Your task to perform on an android device: check data usage Image 0: 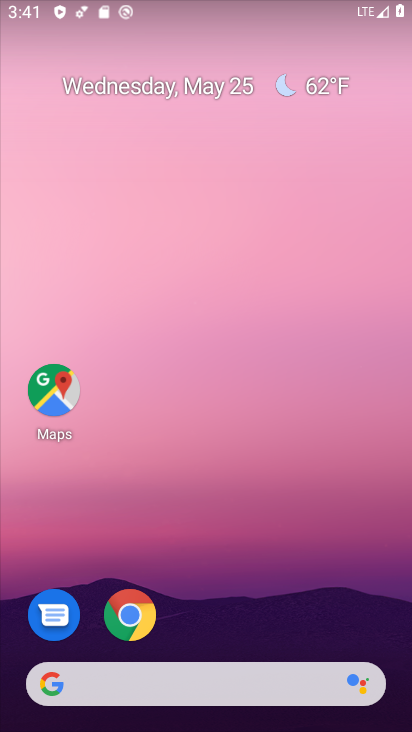
Step 0: drag from (210, 266) to (149, 30)
Your task to perform on an android device: check data usage Image 1: 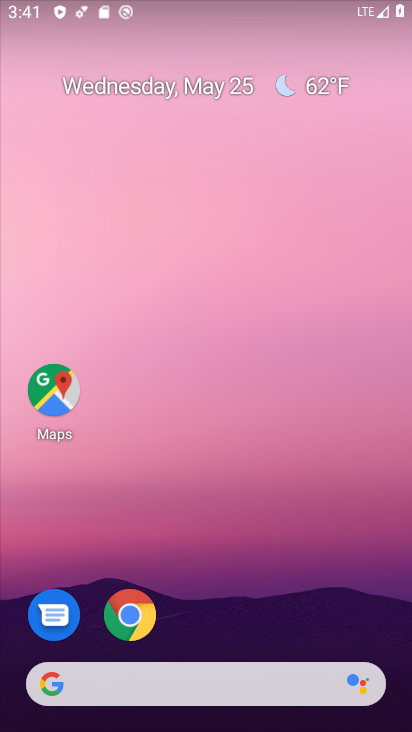
Step 1: drag from (228, 562) to (239, 42)
Your task to perform on an android device: check data usage Image 2: 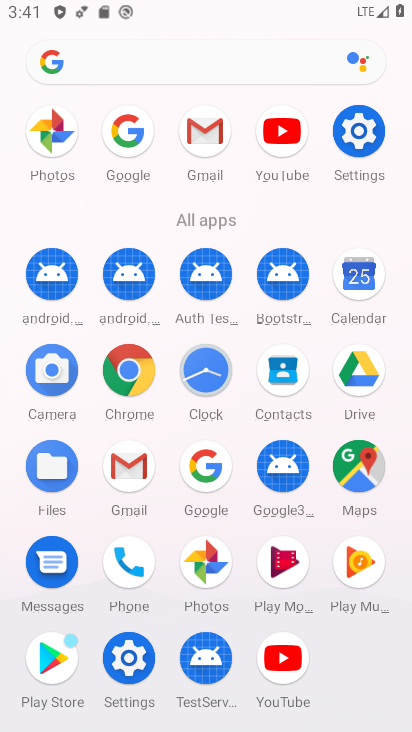
Step 2: click (352, 134)
Your task to perform on an android device: check data usage Image 3: 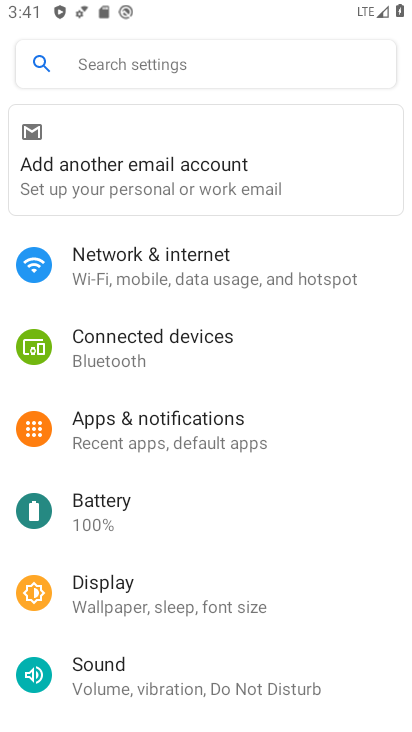
Step 3: click (211, 281)
Your task to perform on an android device: check data usage Image 4: 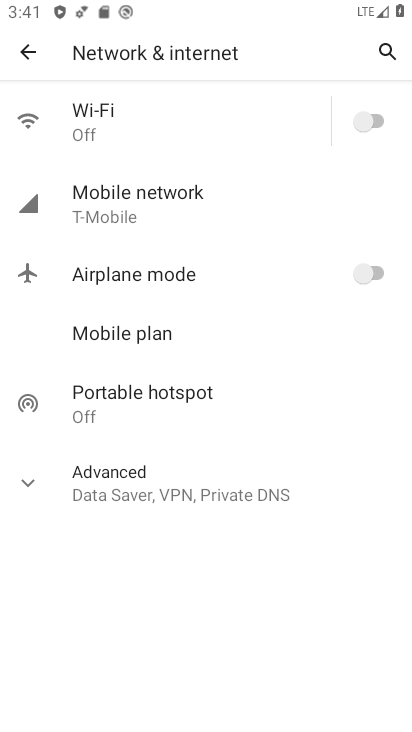
Step 4: click (147, 205)
Your task to perform on an android device: check data usage Image 5: 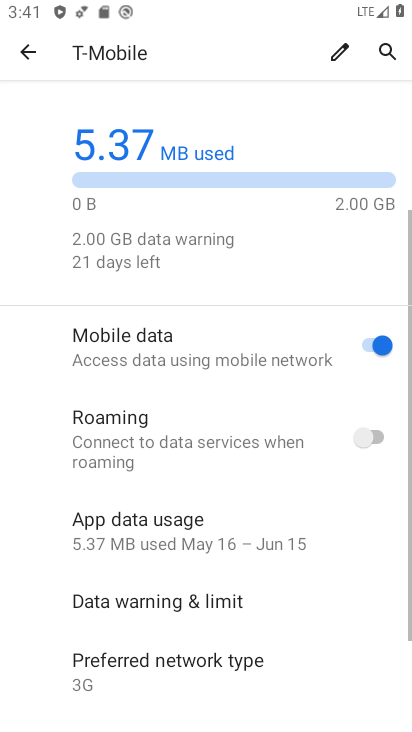
Step 5: task complete